Your task to perform on an android device: Search for seafood restaurants on Google Maps Image 0: 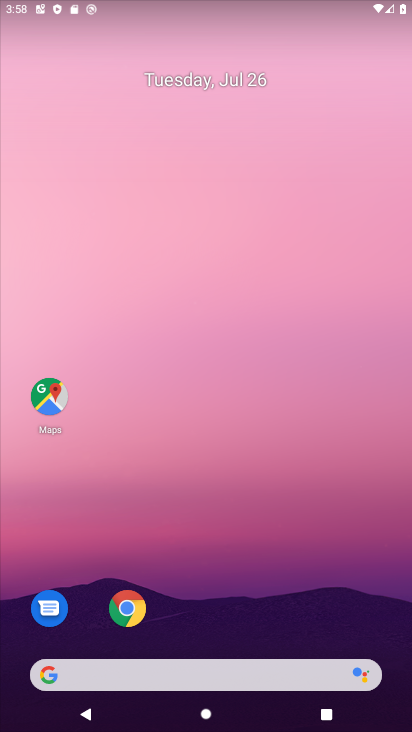
Step 0: drag from (225, 654) to (219, 231)
Your task to perform on an android device: Search for seafood restaurants on Google Maps Image 1: 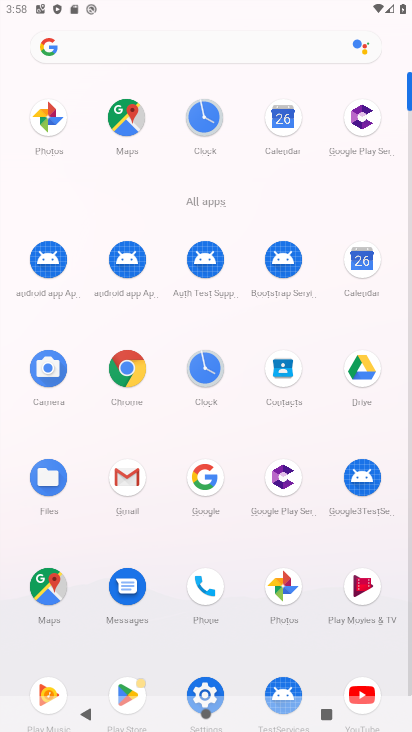
Step 1: click (37, 582)
Your task to perform on an android device: Search for seafood restaurants on Google Maps Image 2: 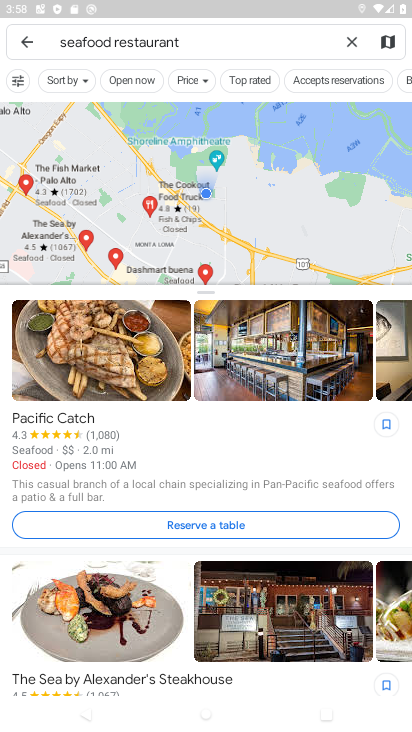
Step 2: task complete